Your task to perform on an android device: open sync settings in chrome Image 0: 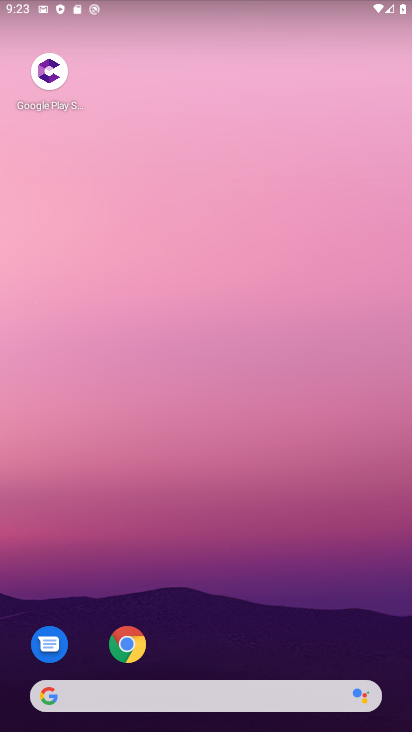
Step 0: click (129, 645)
Your task to perform on an android device: open sync settings in chrome Image 1: 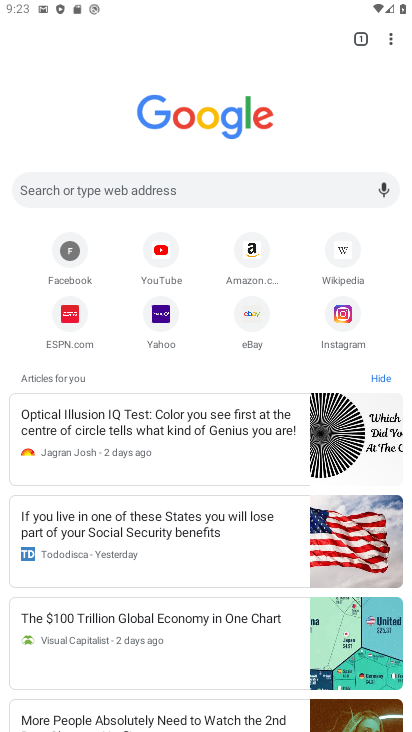
Step 1: click (393, 44)
Your task to perform on an android device: open sync settings in chrome Image 2: 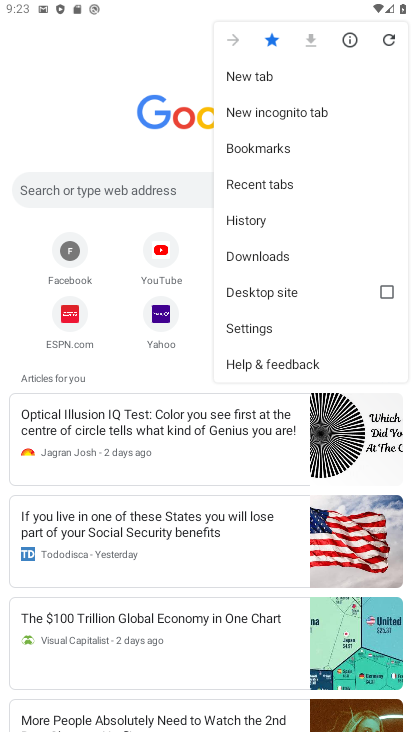
Step 2: click (240, 323)
Your task to perform on an android device: open sync settings in chrome Image 3: 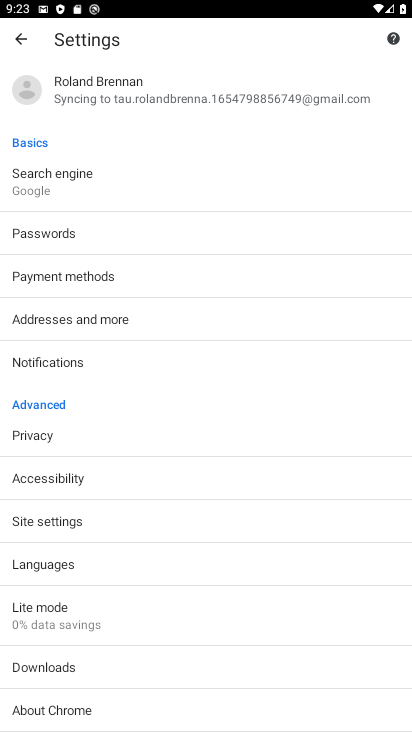
Step 3: click (215, 94)
Your task to perform on an android device: open sync settings in chrome Image 4: 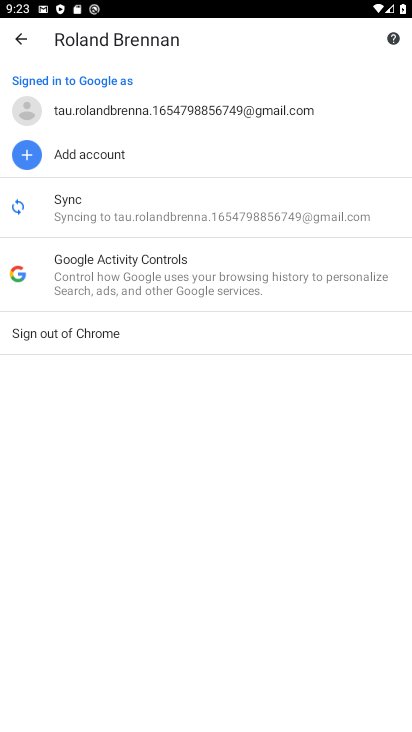
Step 4: click (108, 213)
Your task to perform on an android device: open sync settings in chrome Image 5: 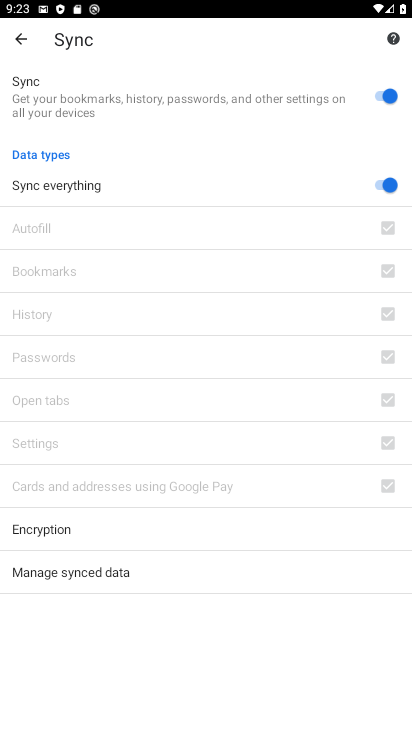
Step 5: task complete